Your task to perform on an android device: Is it going to rain tomorrow? Image 0: 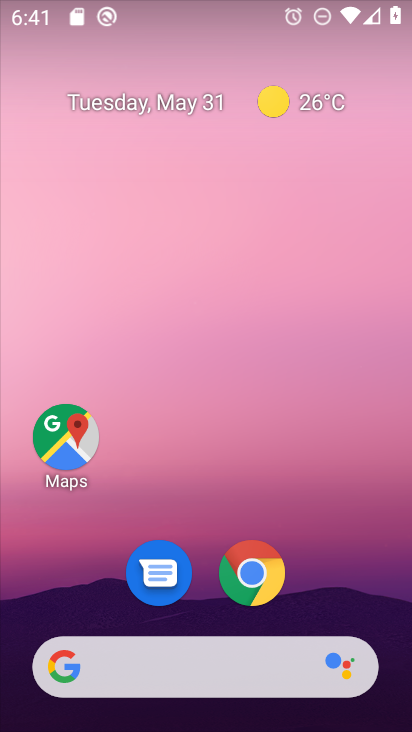
Step 0: drag from (390, 603) to (229, 77)
Your task to perform on an android device: Is it going to rain tomorrow? Image 1: 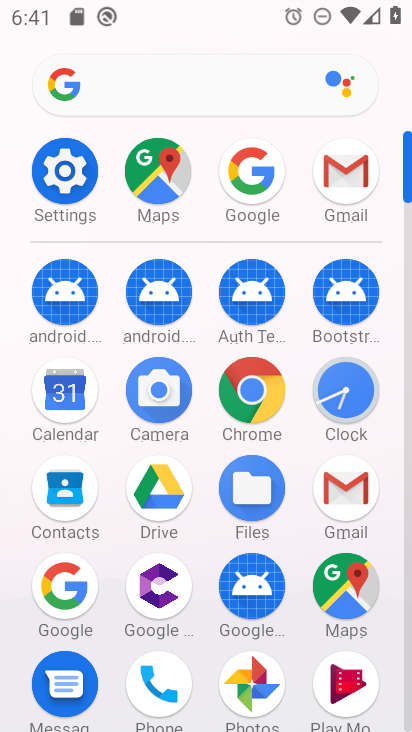
Step 1: click (51, 578)
Your task to perform on an android device: Is it going to rain tomorrow? Image 2: 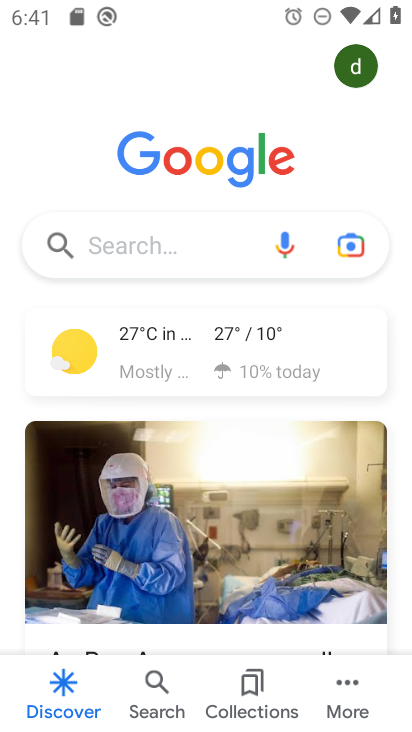
Step 2: click (135, 227)
Your task to perform on an android device: Is it going to rain tomorrow? Image 3: 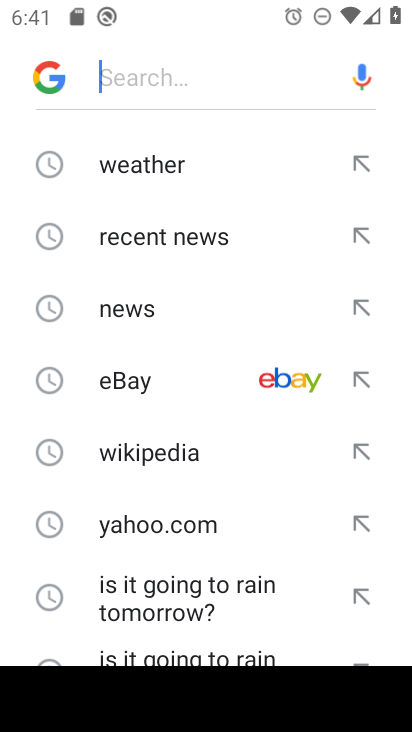
Step 3: click (173, 595)
Your task to perform on an android device: Is it going to rain tomorrow? Image 4: 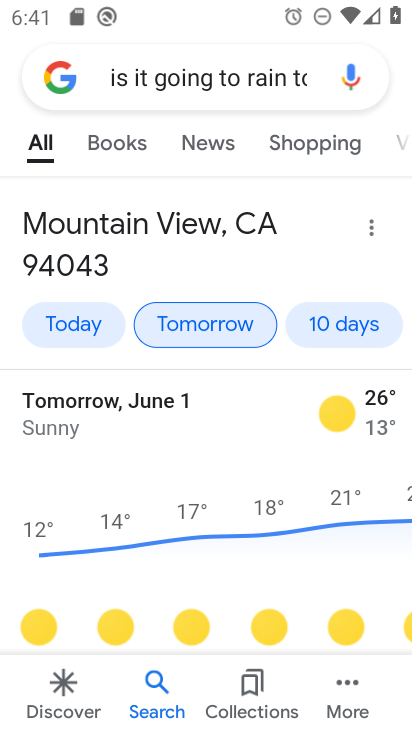
Step 4: task complete